Your task to perform on an android device: Search for the best Mexican restaurants Image 0: 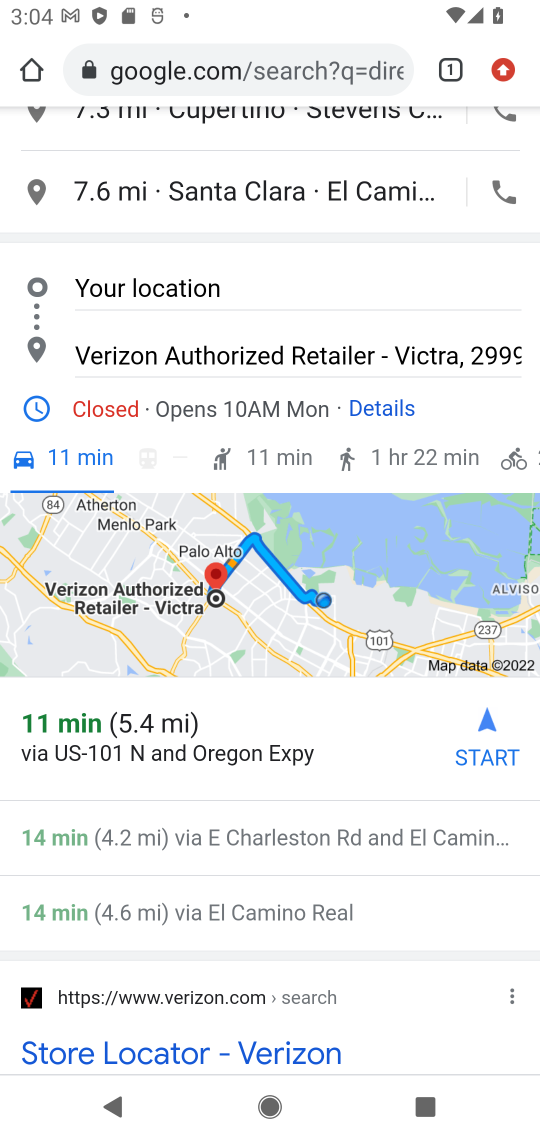
Step 0: press home button
Your task to perform on an android device: Search for the best Mexican restaurants Image 1: 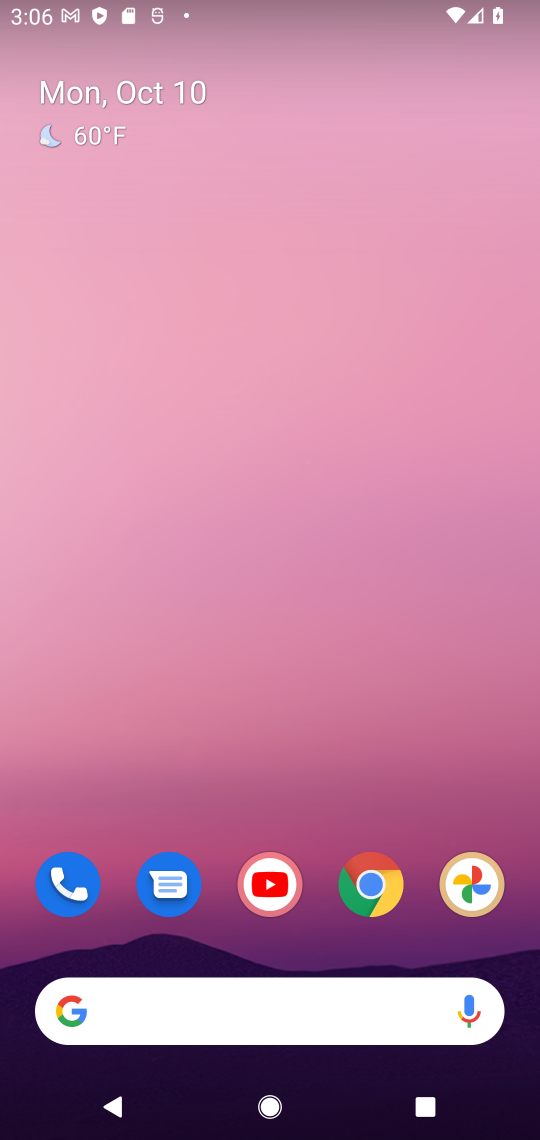
Step 1: click (378, 902)
Your task to perform on an android device: Search for the best Mexican restaurants Image 2: 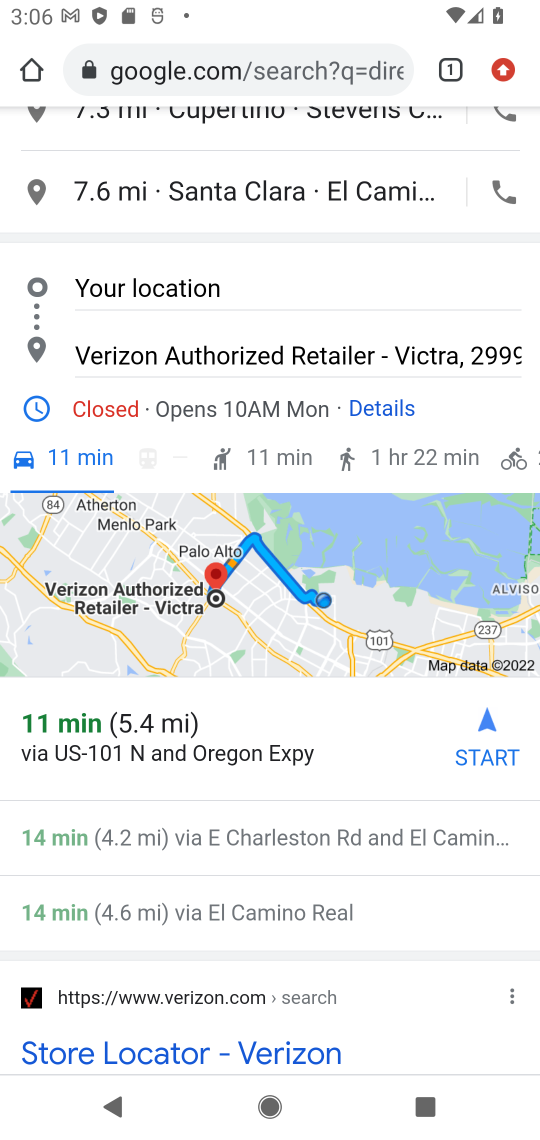
Step 2: click (189, 70)
Your task to perform on an android device: Search for the best Mexican restaurants Image 3: 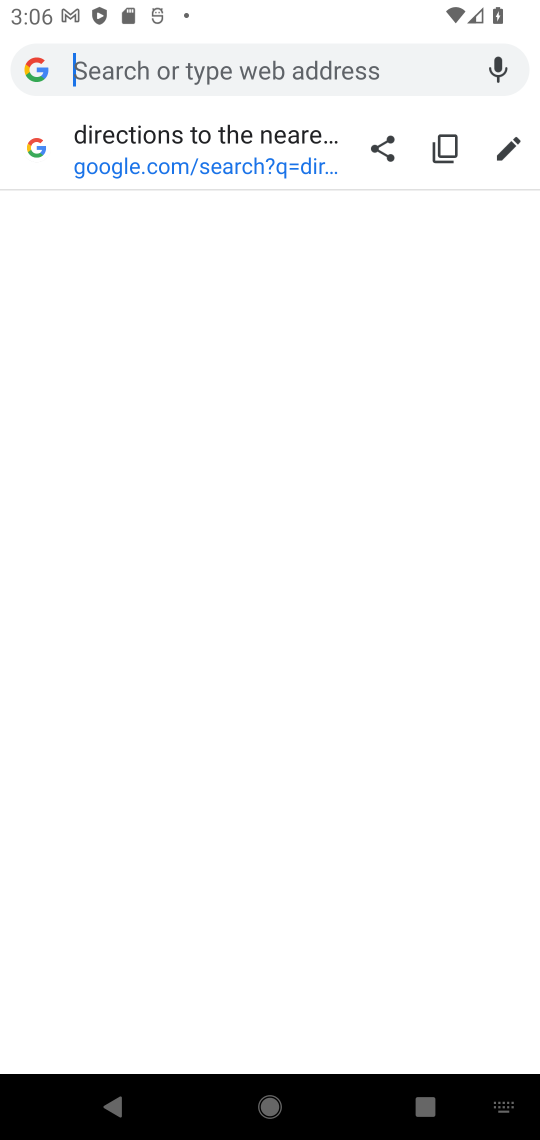
Step 3: type " best Mexican restaurants"
Your task to perform on an android device: Search for the best Mexican restaurants Image 4: 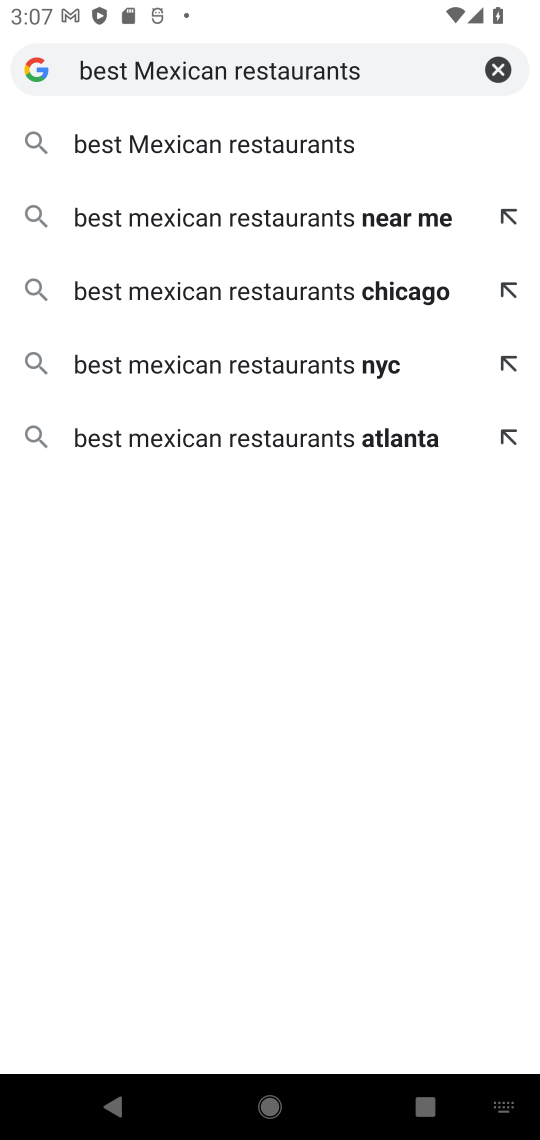
Step 4: click (229, 152)
Your task to perform on an android device: Search for the best Mexican restaurants Image 5: 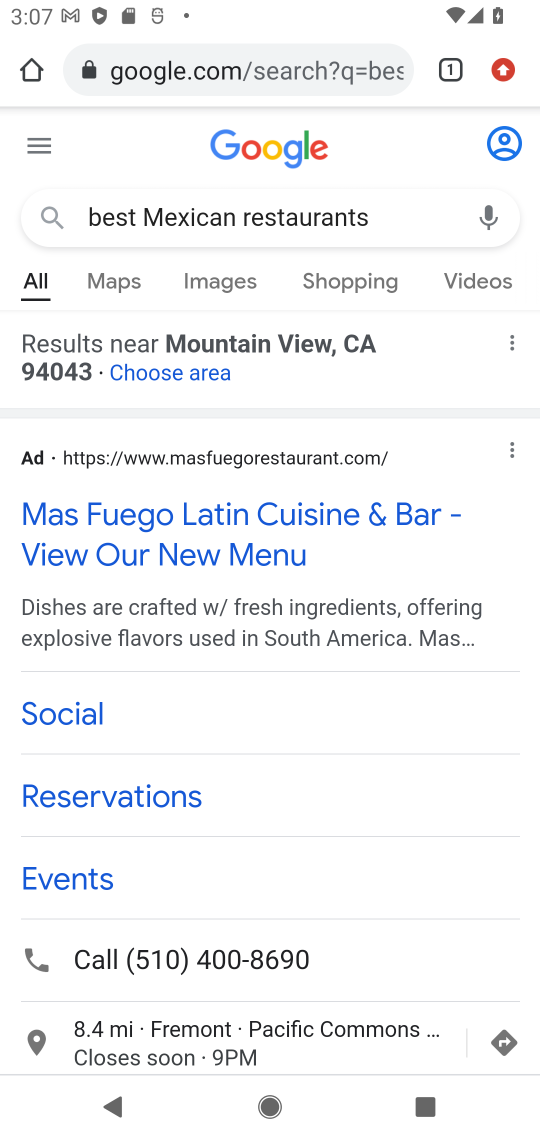
Step 5: drag from (290, 904) to (206, 421)
Your task to perform on an android device: Search for the best Mexican restaurants Image 6: 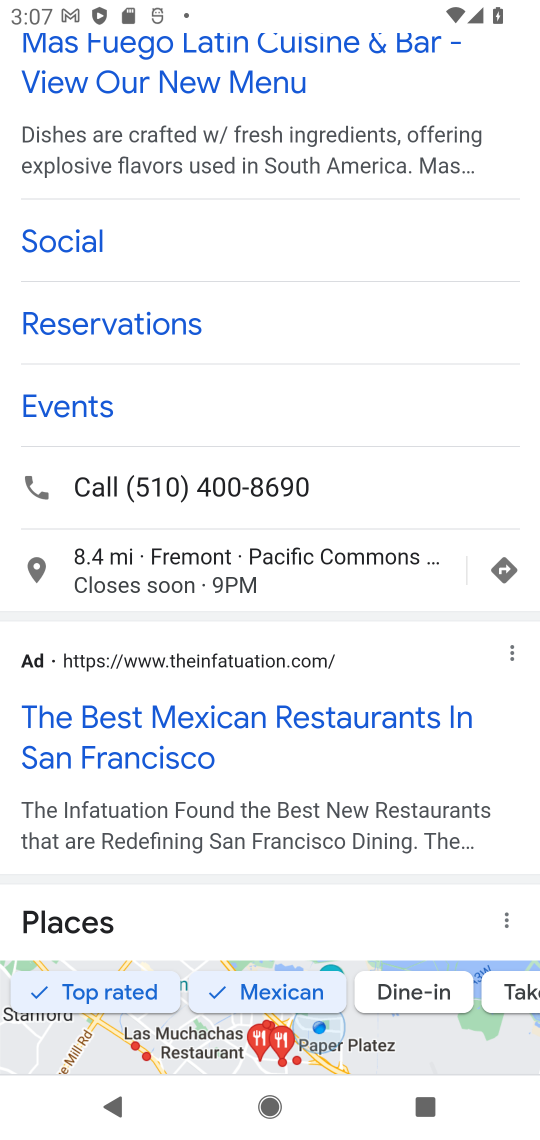
Step 6: click (125, 717)
Your task to perform on an android device: Search for the best Mexican restaurants Image 7: 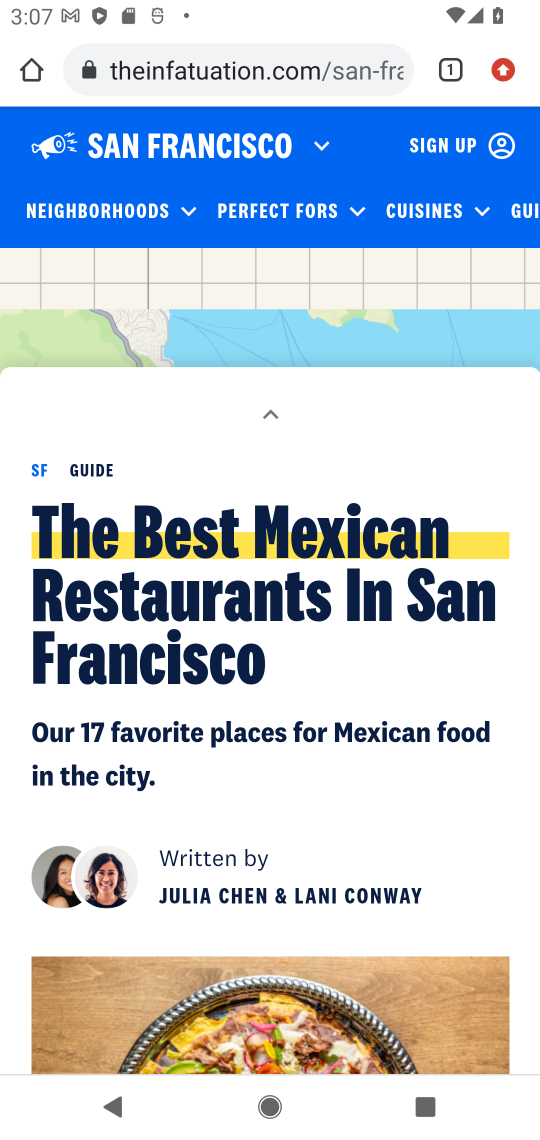
Step 7: task complete